Your task to perform on an android device: turn off translation in the chrome app Image 0: 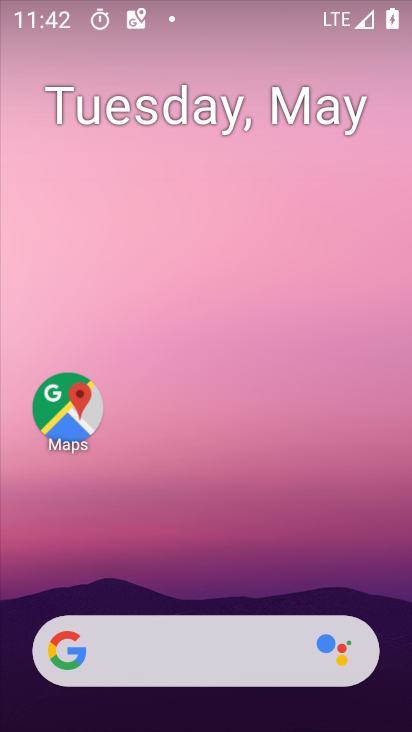
Step 0: drag from (186, 629) to (120, 19)
Your task to perform on an android device: turn off translation in the chrome app Image 1: 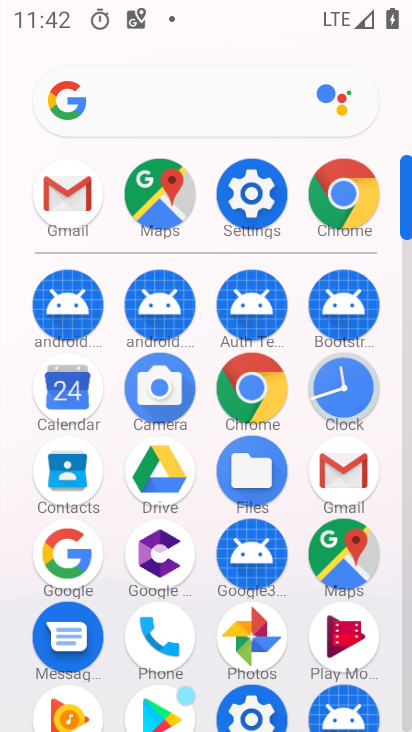
Step 1: click (363, 187)
Your task to perform on an android device: turn off translation in the chrome app Image 2: 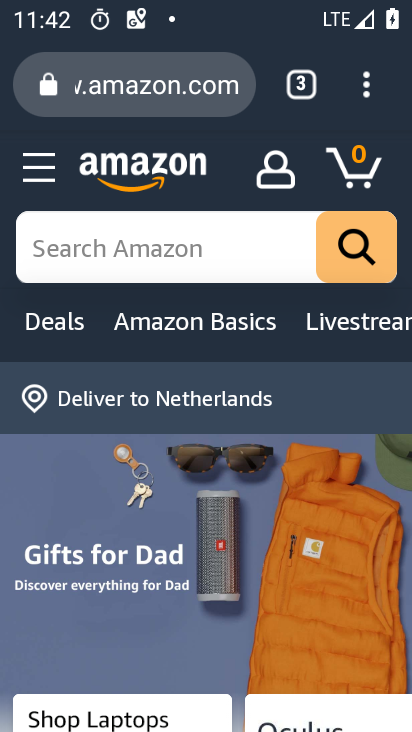
Step 2: drag from (373, 69) to (130, 579)
Your task to perform on an android device: turn off translation in the chrome app Image 3: 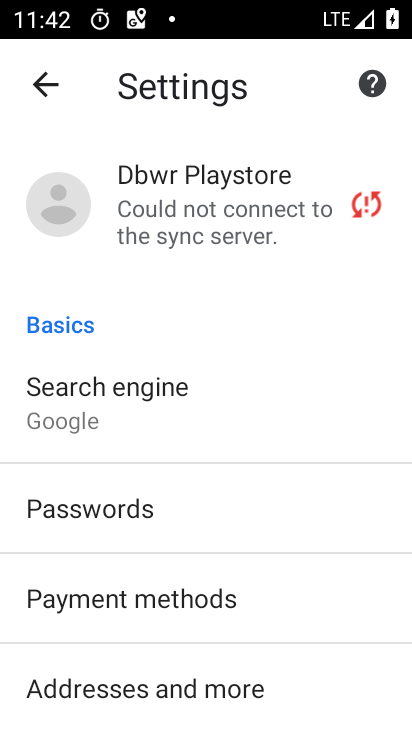
Step 3: drag from (126, 640) to (137, 249)
Your task to perform on an android device: turn off translation in the chrome app Image 4: 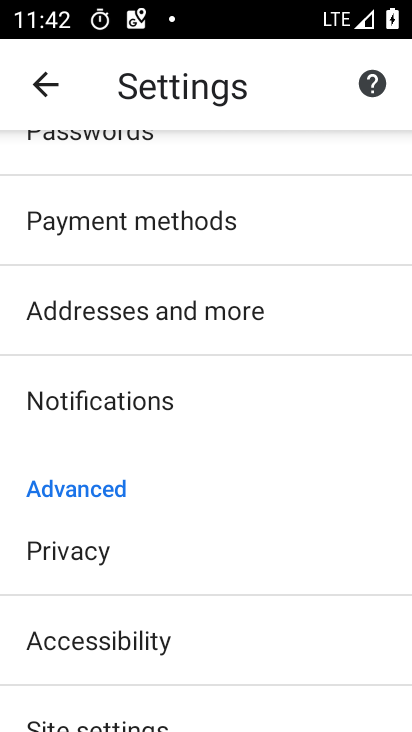
Step 4: drag from (120, 696) to (121, 359)
Your task to perform on an android device: turn off translation in the chrome app Image 5: 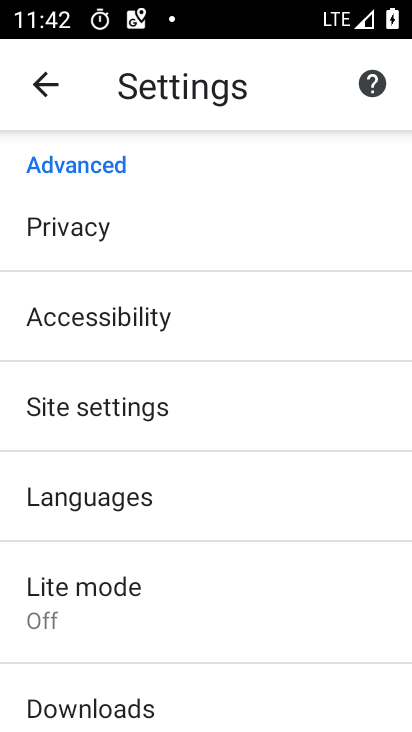
Step 5: click (106, 514)
Your task to perform on an android device: turn off translation in the chrome app Image 6: 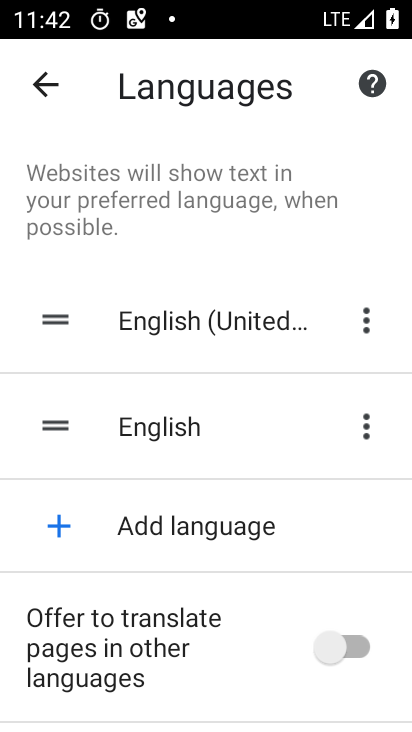
Step 6: task complete